Your task to perform on an android device: uninstall "Roku - Official Remote Control" Image 0: 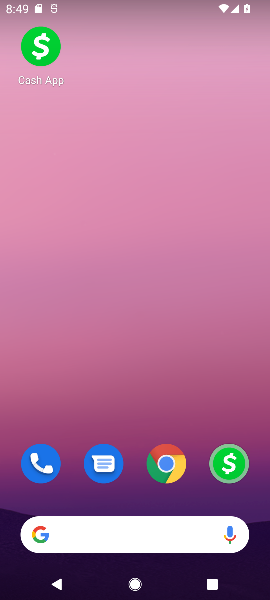
Step 0: drag from (135, 439) to (158, 82)
Your task to perform on an android device: uninstall "Roku - Official Remote Control" Image 1: 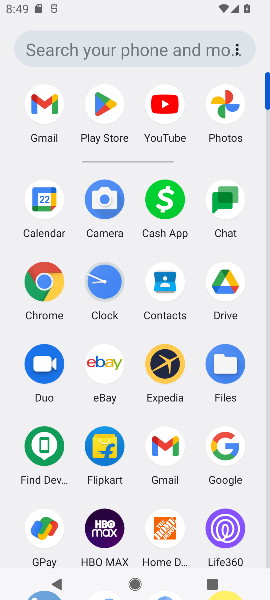
Step 1: click (107, 113)
Your task to perform on an android device: uninstall "Roku - Official Remote Control" Image 2: 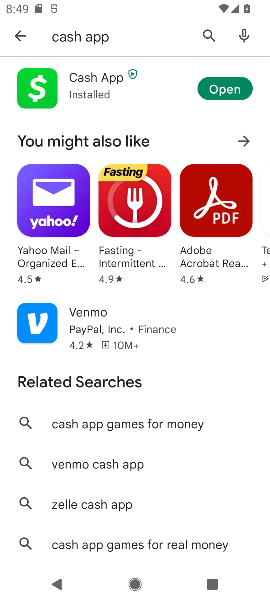
Step 2: click (23, 39)
Your task to perform on an android device: uninstall "Roku - Official Remote Control" Image 3: 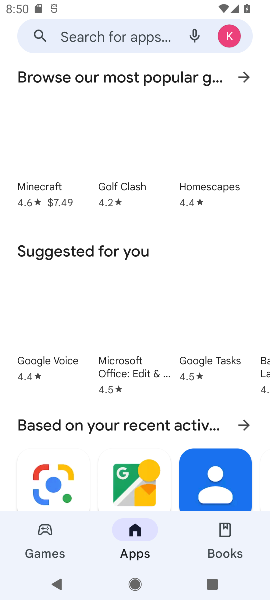
Step 3: click (81, 38)
Your task to perform on an android device: uninstall "Roku - Official Remote Control" Image 4: 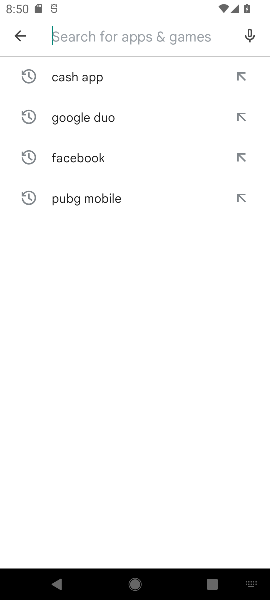
Step 4: type "Roku"
Your task to perform on an android device: uninstall "Roku - Official Remote Control" Image 5: 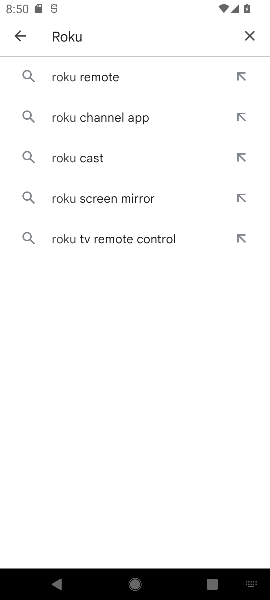
Step 5: click (105, 75)
Your task to perform on an android device: uninstall "Roku - Official Remote Control" Image 6: 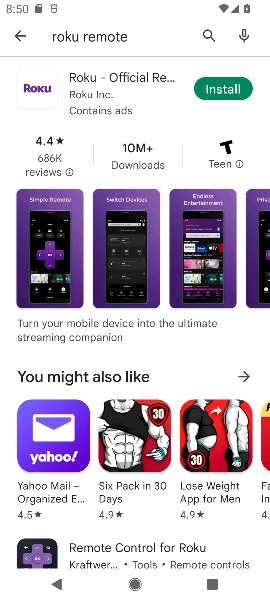
Step 6: click (223, 91)
Your task to perform on an android device: uninstall "Roku - Official Remote Control" Image 7: 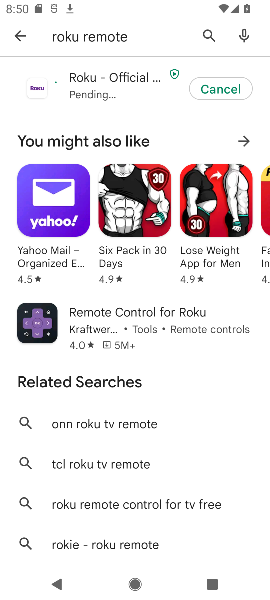
Step 7: task complete